Your task to perform on an android device: What's on my calendar tomorrow? Image 0: 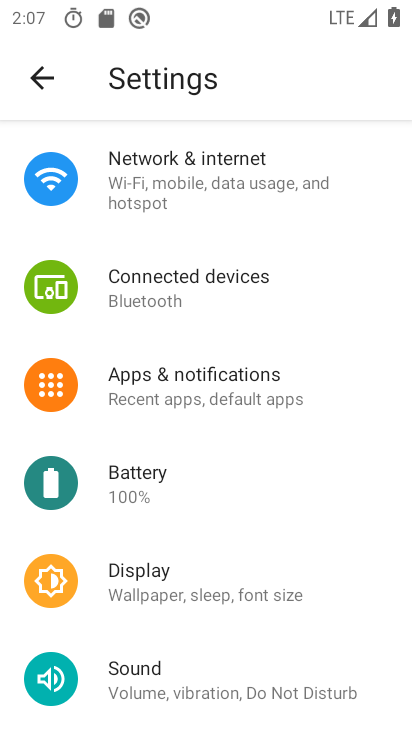
Step 0: press home button
Your task to perform on an android device: What's on my calendar tomorrow? Image 1: 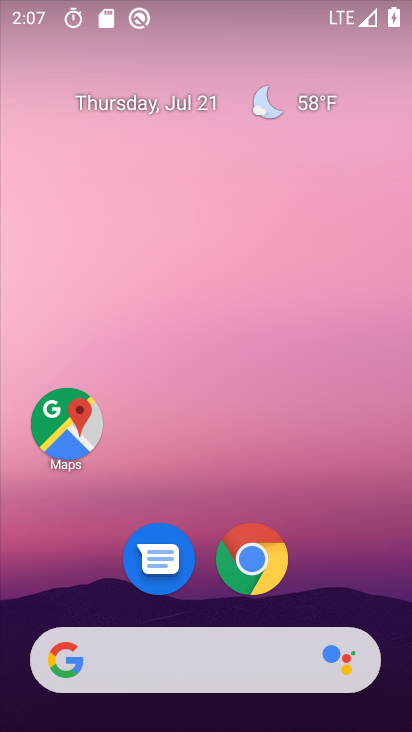
Step 1: drag from (361, 555) to (388, 63)
Your task to perform on an android device: What's on my calendar tomorrow? Image 2: 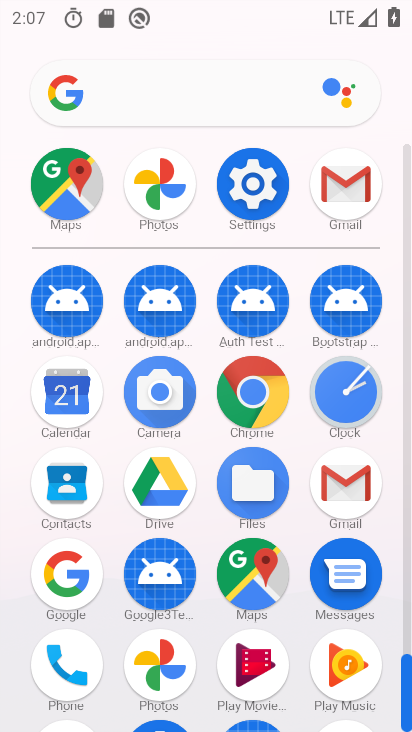
Step 2: click (80, 404)
Your task to perform on an android device: What's on my calendar tomorrow? Image 3: 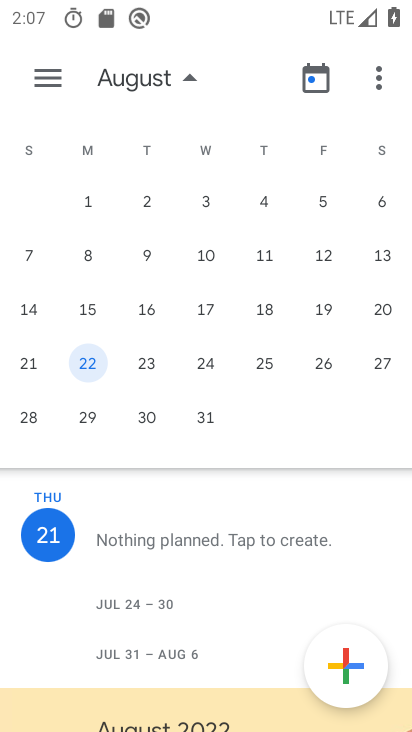
Step 3: drag from (270, 518) to (272, 266)
Your task to perform on an android device: What's on my calendar tomorrow? Image 4: 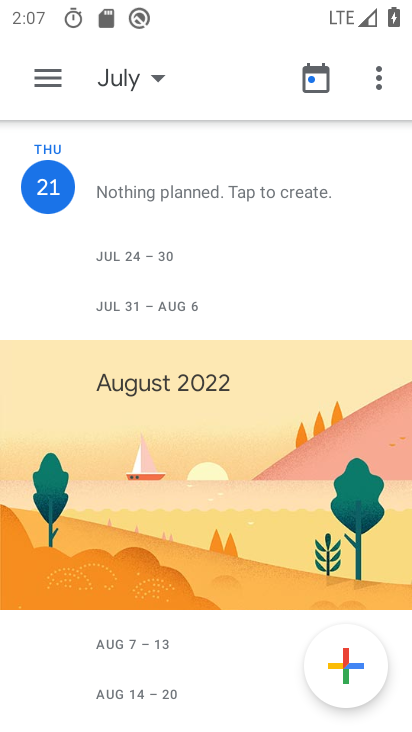
Step 4: click (168, 82)
Your task to perform on an android device: What's on my calendar tomorrow? Image 5: 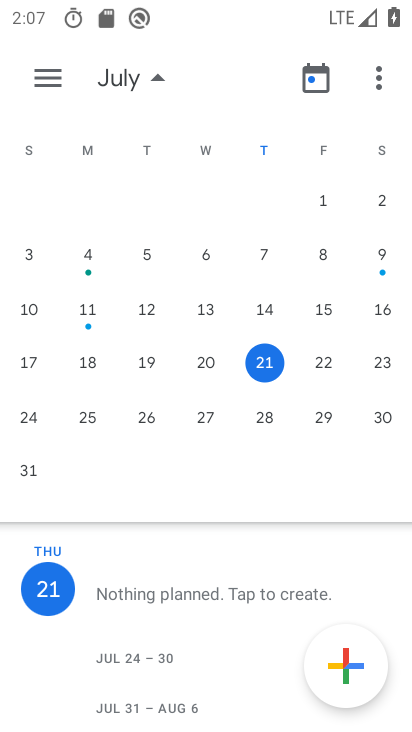
Step 5: click (323, 371)
Your task to perform on an android device: What's on my calendar tomorrow? Image 6: 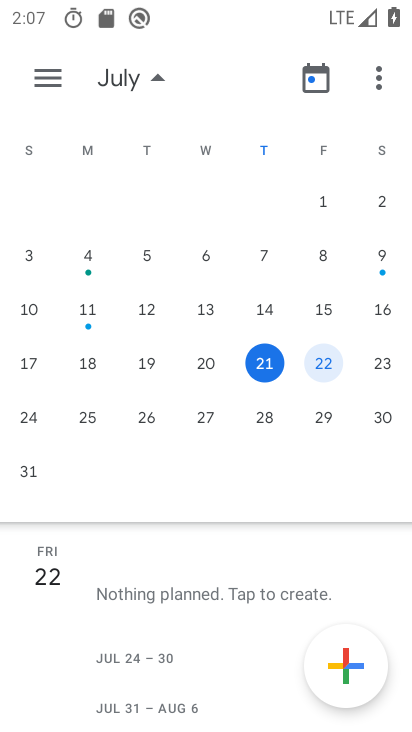
Step 6: task complete